Your task to perform on an android device: Open Chrome and go to the settings page Image 0: 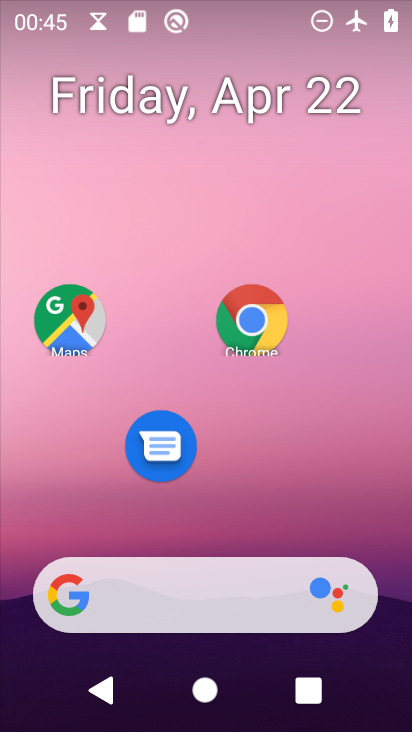
Step 0: drag from (219, 508) to (195, 123)
Your task to perform on an android device: Open Chrome and go to the settings page Image 1: 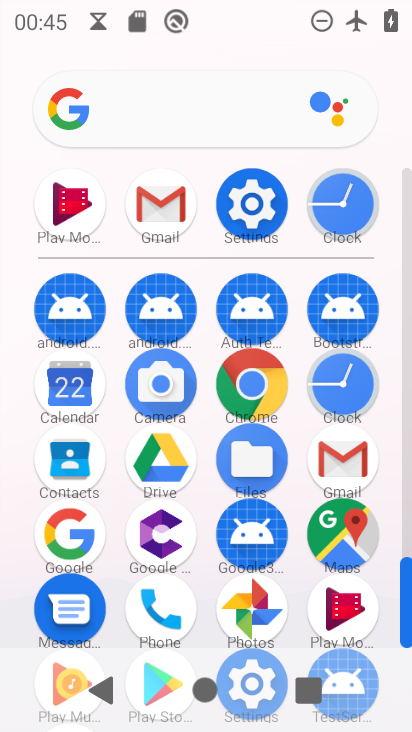
Step 1: click (260, 371)
Your task to perform on an android device: Open Chrome and go to the settings page Image 2: 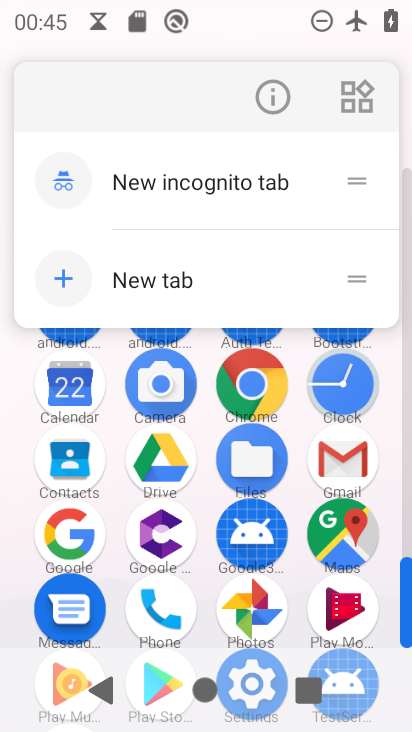
Step 2: click (266, 107)
Your task to perform on an android device: Open Chrome and go to the settings page Image 3: 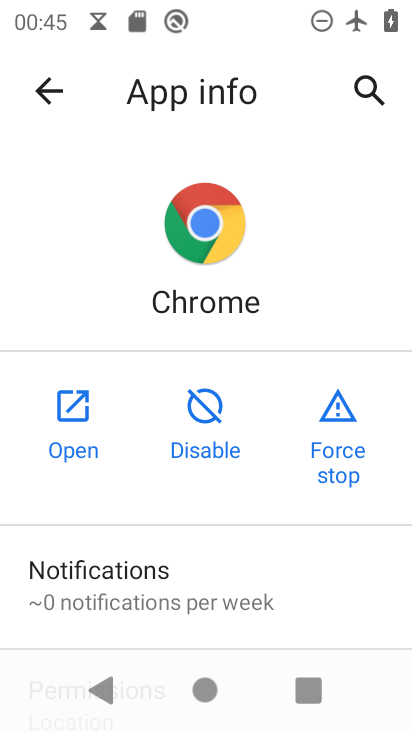
Step 3: click (59, 438)
Your task to perform on an android device: Open Chrome and go to the settings page Image 4: 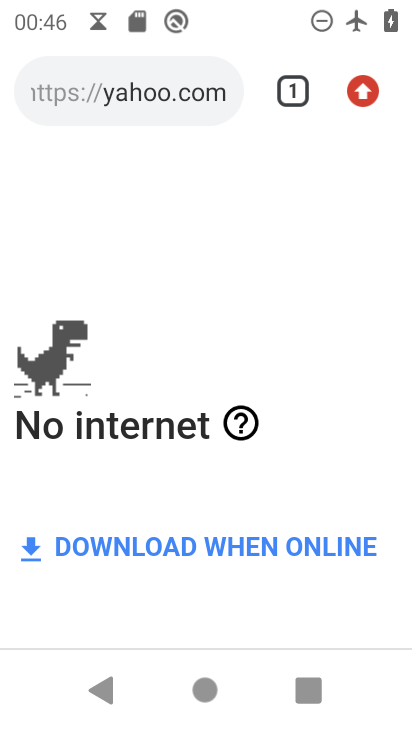
Step 4: task complete